Your task to perform on an android device: delete a single message in the gmail app Image 0: 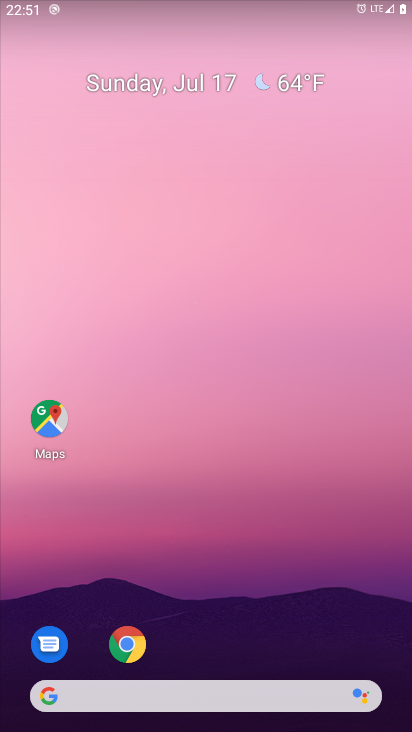
Step 0: press home button
Your task to perform on an android device: delete a single message in the gmail app Image 1: 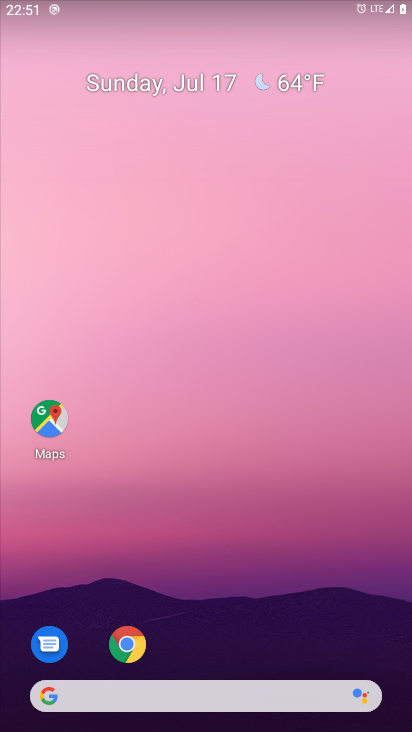
Step 1: click (231, 206)
Your task to perform on an android device: delete a single message in the gmail app Image 2: 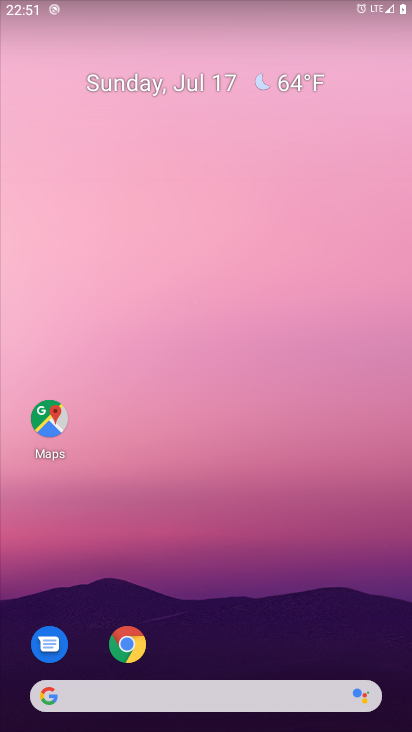
Step 2: drag from (275, 539) to (390, 10)
Your task to perform on an android device: delete a single message in the gmail app Image 3: 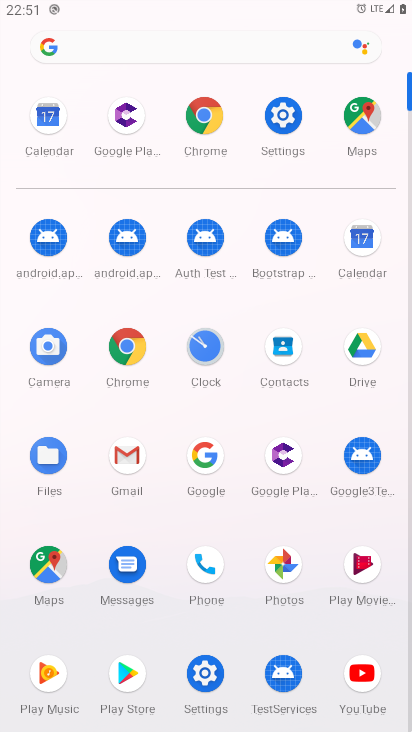
Step 3: click (125, 459)
Your task to perform on an android device: delete a single message in the gmail app Image 4: 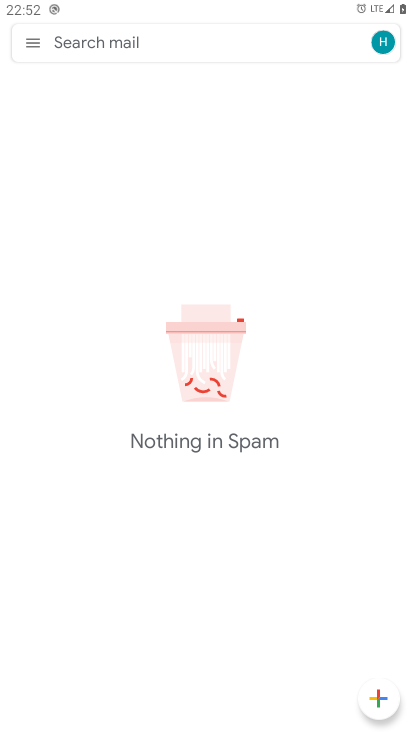
Step 4: click (37, 47)
Your task to perform on an android device: delete a single message in the gmail app Image 5: 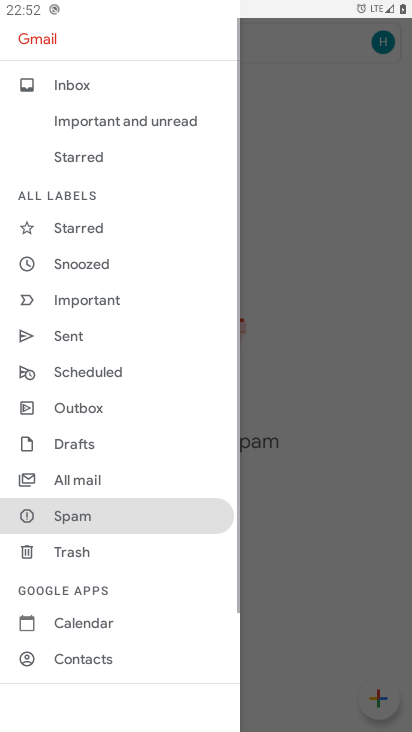
Step 5: click (85, 470)
Your task to perform on an android device: delete a single message in the gmail app Image 6: 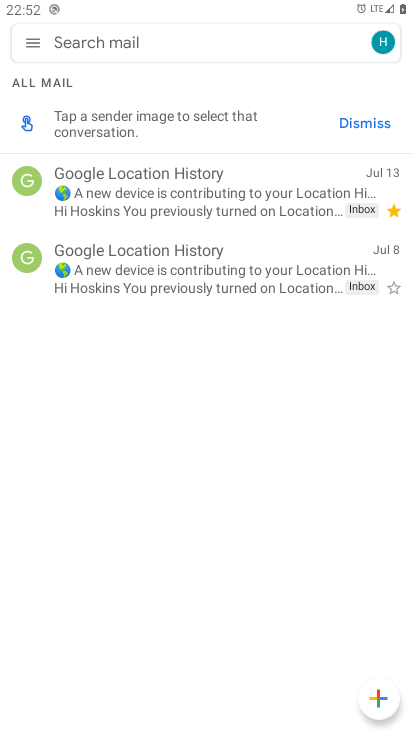
Step 6: click (234, 198)
Your task to perform on an android device: delete a single message in the gmail app Image 7: 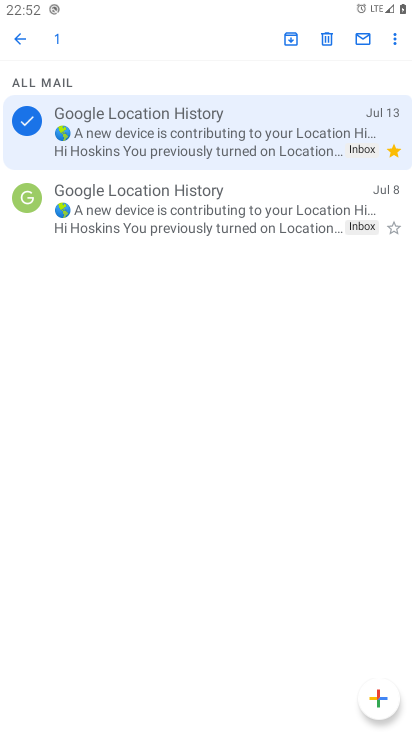
Step 7: click (324, 40)
Your task to perform on an android device: delete a single message in the gmail app Image 8: 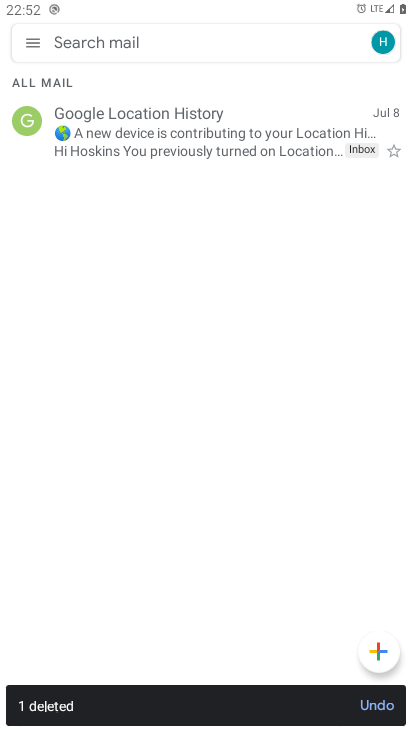
Step 8: task complete